Your task to perform on an android device: Play the last video I watched on Youtube Image 0: 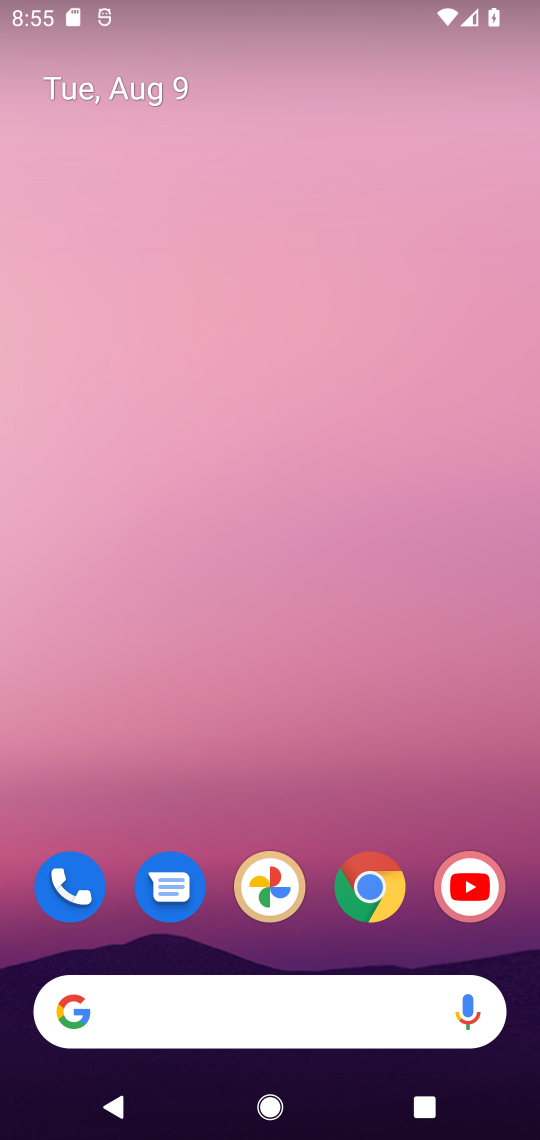
Step 0: click (443, 870)
Your task to perform on an android device: Play the last video I watched on Youtube Image 1: 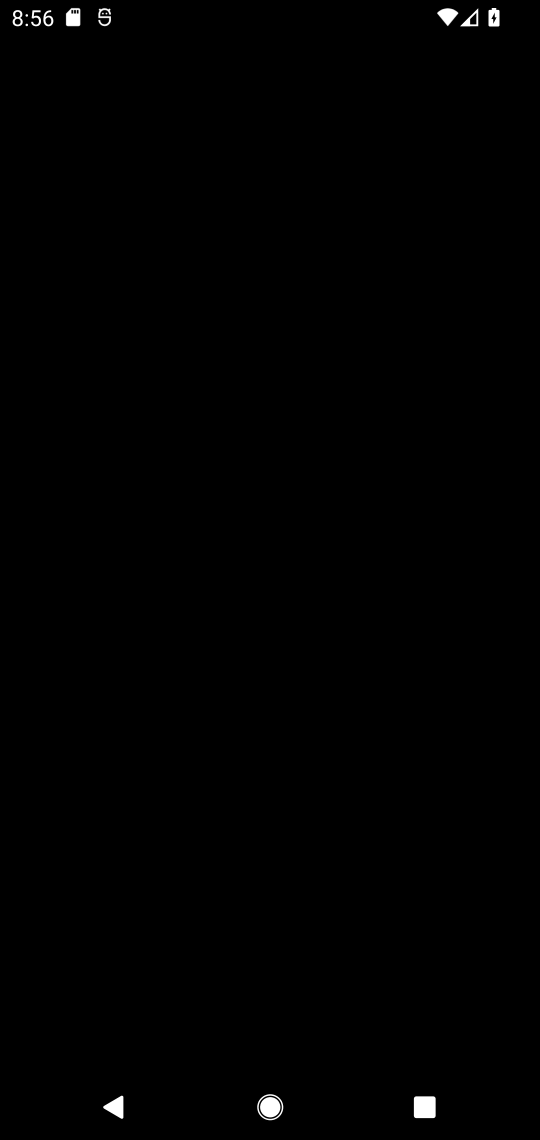
Step 1: task complete